Your task to perform on an android device: Check the weather Image 0: 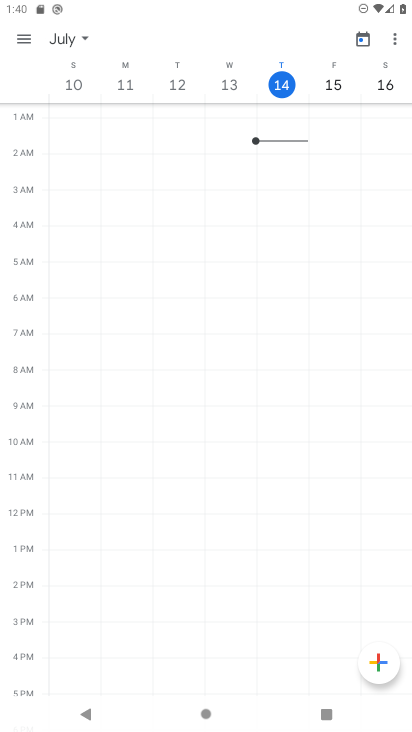
Step 0: press home button
Your task to perform on an android device: Check the weather Image 1: 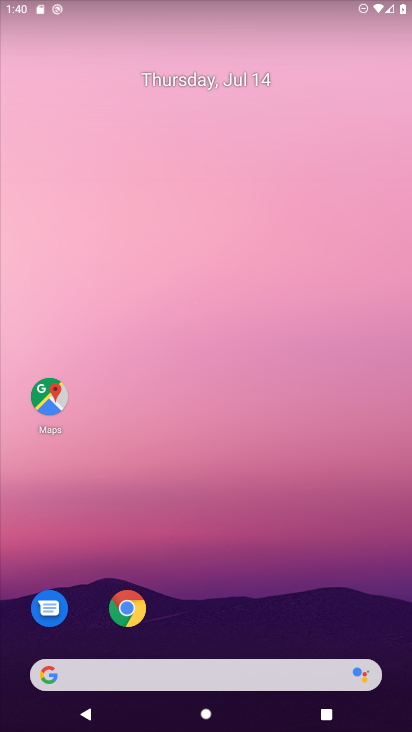
Step 1: drag from (247, 695) to (241, 160)
Your task to perform on an android device: Check the weather Image 2: 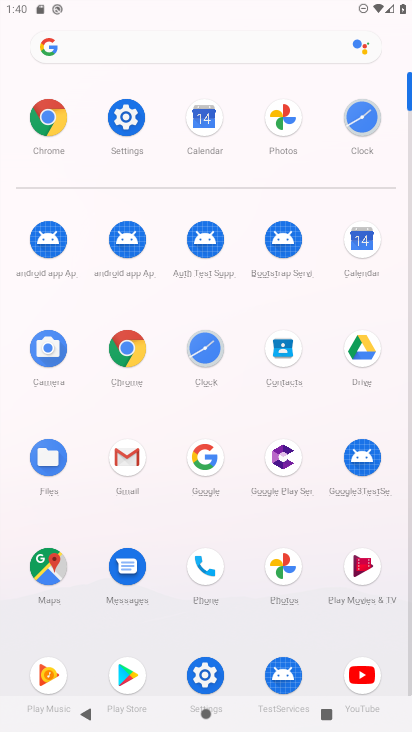
Step 2: click (209, 465)
Your task to perform on an android device: Check the weather Image 3: 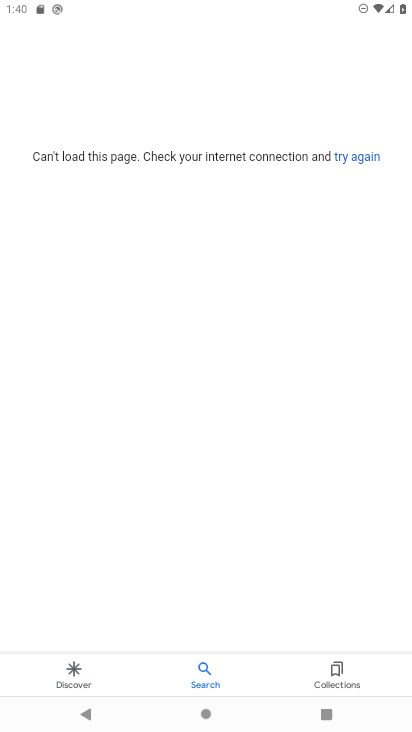
Step 3: click (371, 157)
Your task to perform on an android device: Check the weather Image 4: 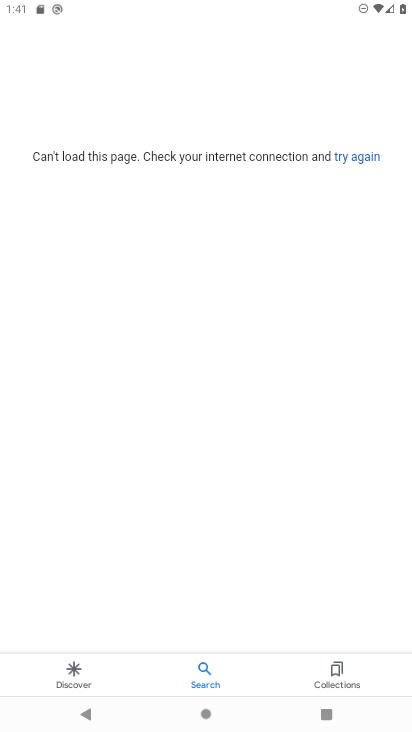
Step 4: click (375, 162)
Your task to perform on an android device: Check the weather Image 5: 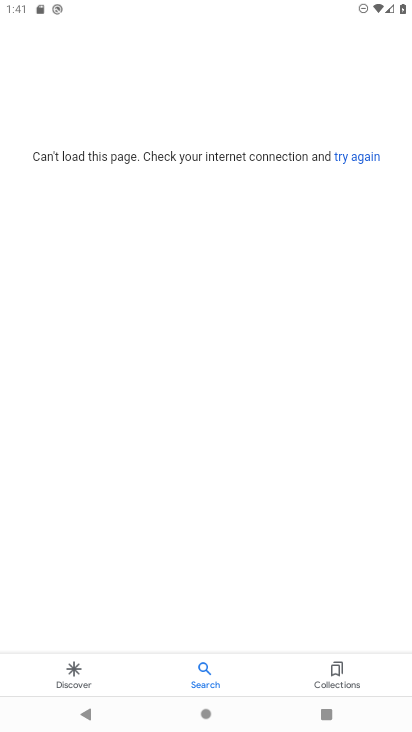
Step 5: click (362, 152)
Your task to perform on an android device: Check the weather Image 6: 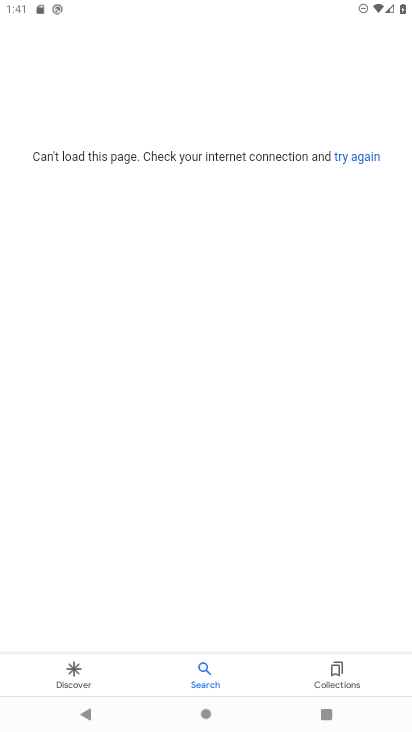
Step 6: click (362, 152)
Your task to perform on an android device: Check the weather Image 7: 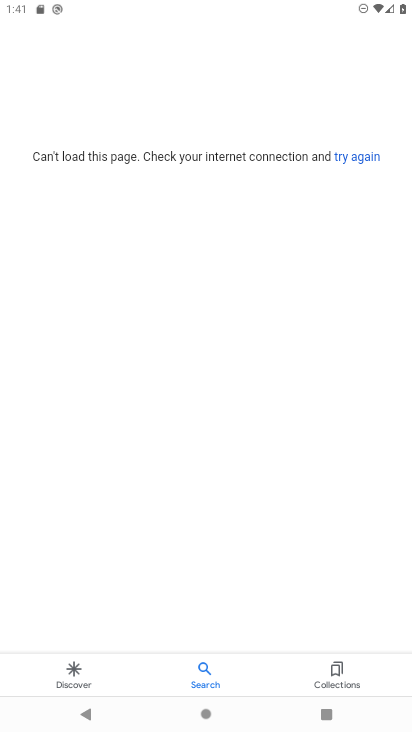
Step 7: click (362, 152)
Your task to perform on an android device: Check the weather Image 8: 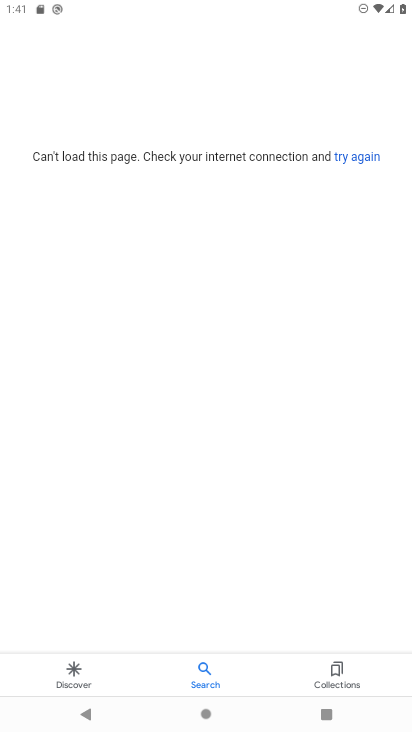
Step 8: task complete